Your task to perform on an android device: change alarm snooze length Image 0: 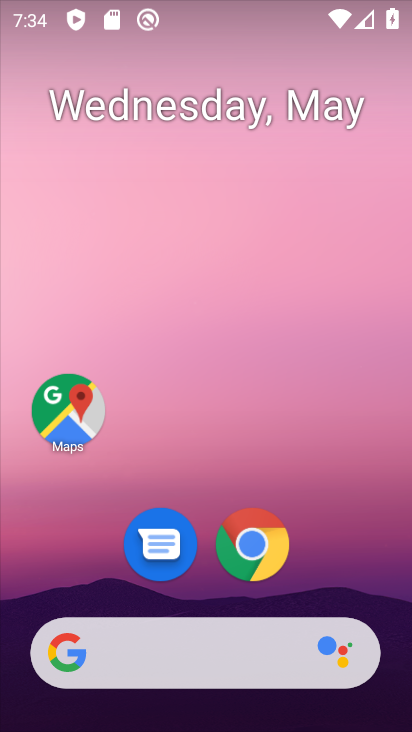
Step 0: drag from (213, 577) to (225, 125)
Your task to perform on an android device: change alarm snooze length Image 1: 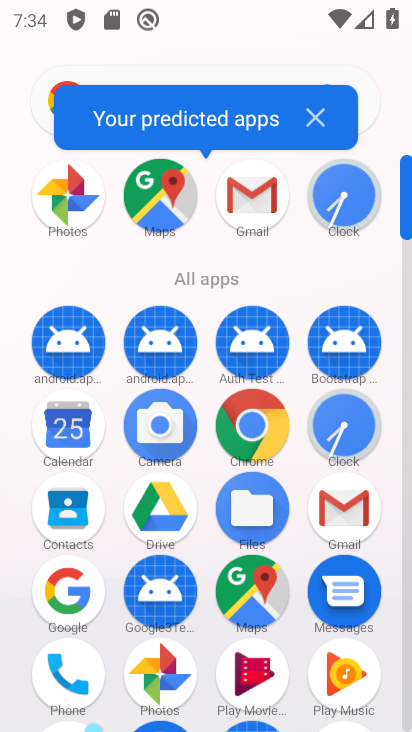
Step 1: click (359, 442)
Your task to perform on an android device: change alarm snooze length Image 2: 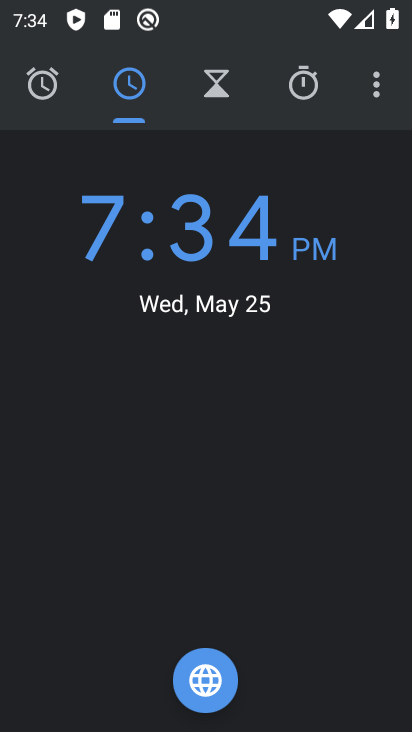
Step 2: click (386, 78)
Your task to perform on an android device: change alarm snooze length Image 3: 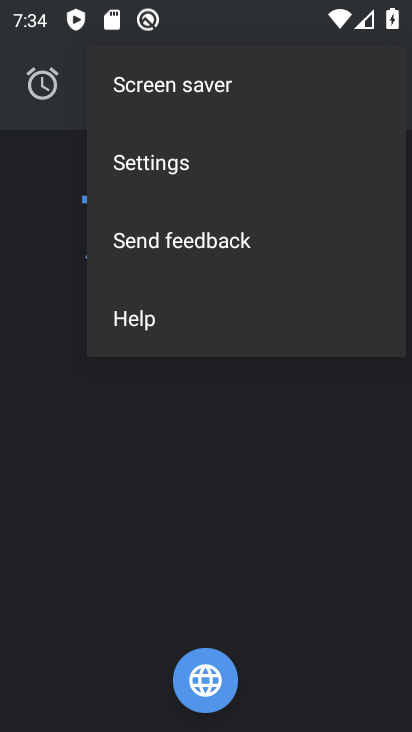
Step 3: click (150, 186)
Your task to perform on an android device: change alarm snooze length Image 4: 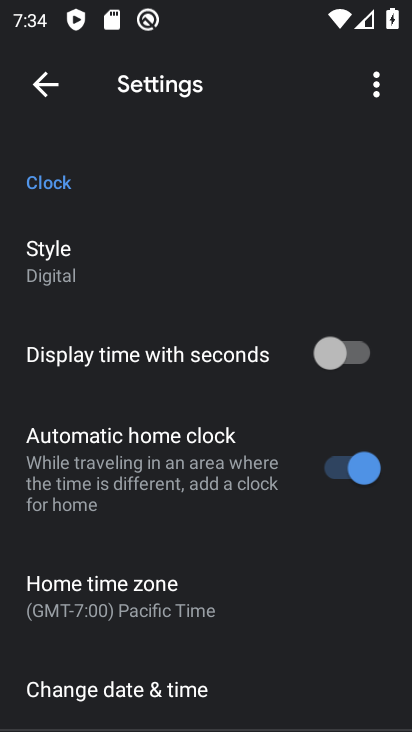
Step 4: drag from (110, 659) to (201, 241)
Your task to perform on an android device: change alarm snooze length Image 5: 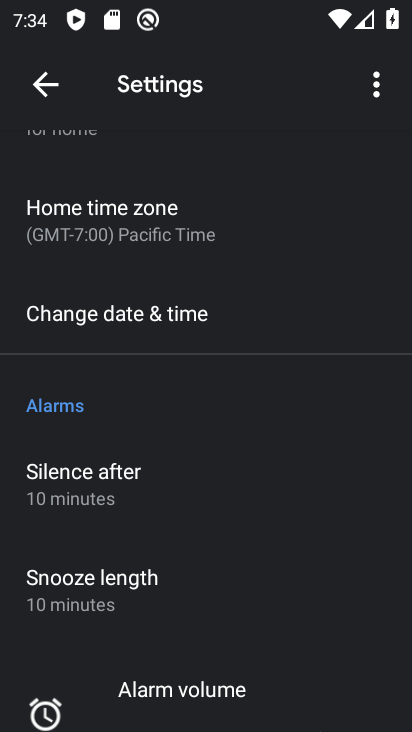
Step 5: click (142, 590)
Your task to perform on an android device: change alarm snooze length Image 6: 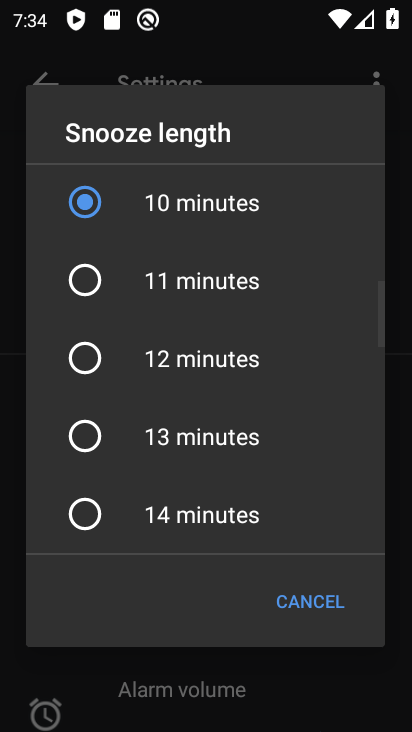
Step 6: click (96, 515)
Your task to perform on an android device: change alarm snooze length Image 7: 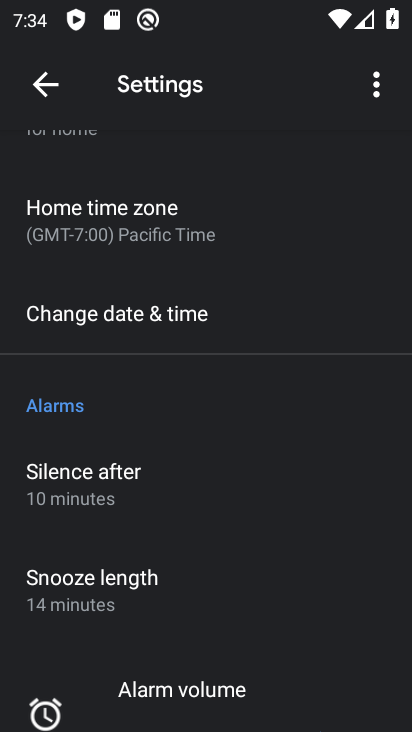
Step 7: task complete